Your task to perform on an android device: turn on translation in the chrome app Image 0: 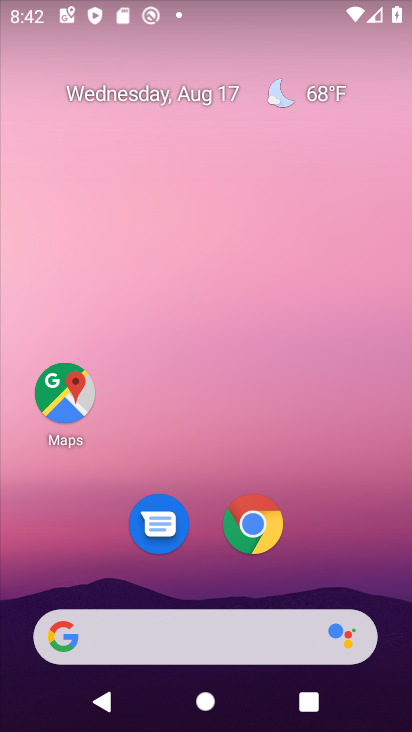
Step 0: click (261, 518)
Your task to perform on an android device: turn on translation in the chrome app Image 1: 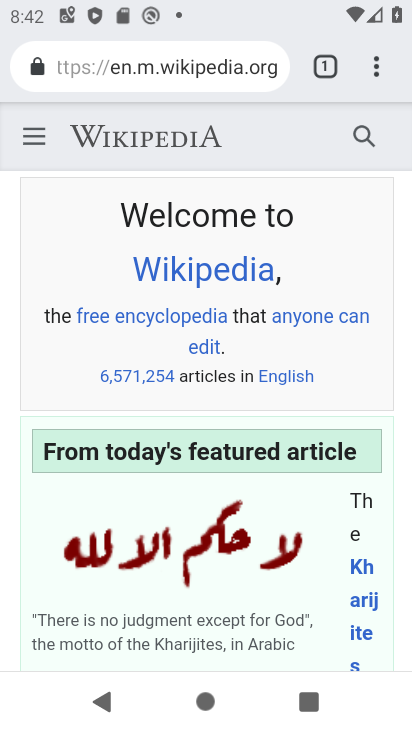
Step 1: press back button
Your task to perform on an android device: turn on translation in the chrome app Image 2: 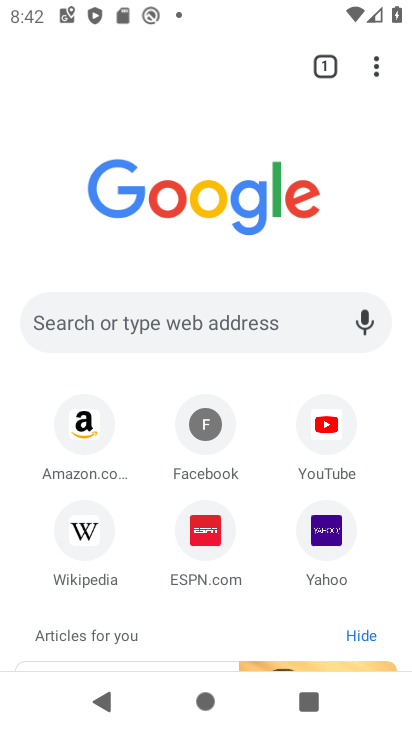
Step 2: click (371, 64)
Your task to perform on an android device: turn on translation in the chrome app Image 3: 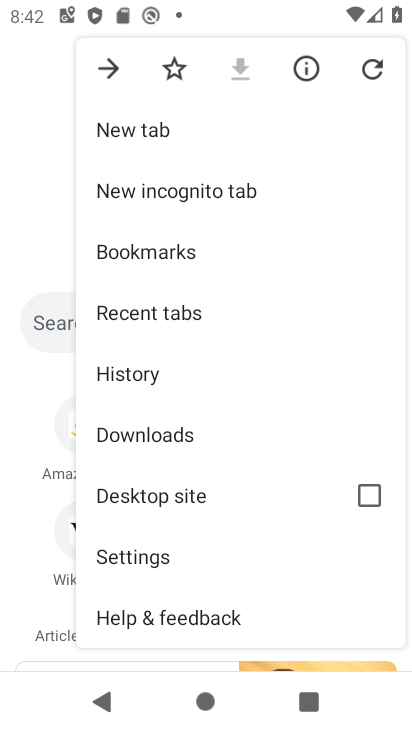
Step 3: click (158, 552)
Your task to perform on an android device: turn on translation in the chrome app Image 4: 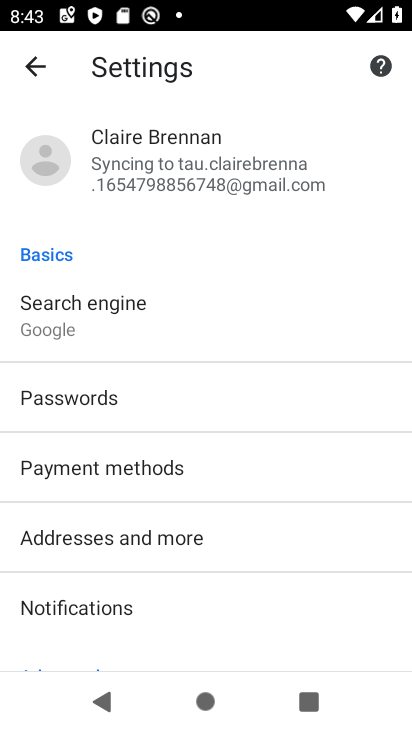
Step 4: drag from (158, 552) to (176, 231)
Your task to perform on an android device: turn on translation in the chrome app Image 5: 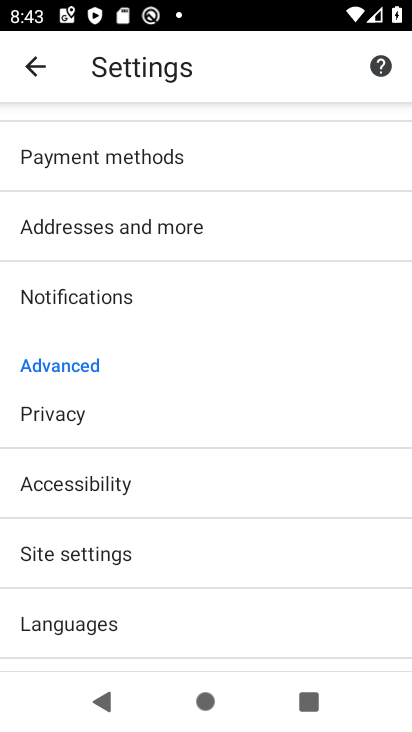
Step 5: click (175, 628)
Your task to perform on an android device: turn on translation in the chrome app Image 6: 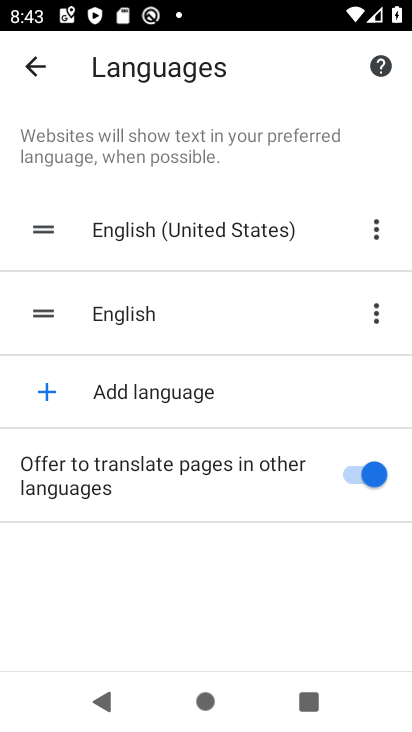
Step 6: task complete